Your task to perform on an android device: find photos in the google photos app Image 0: 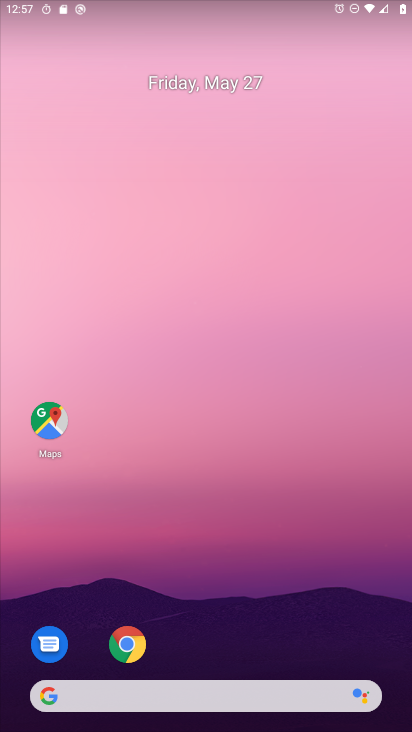
Step 0: drag from (249, 646) to (251, 237)
Your task to perform on an android device: find photos in the google photos app Image 1: 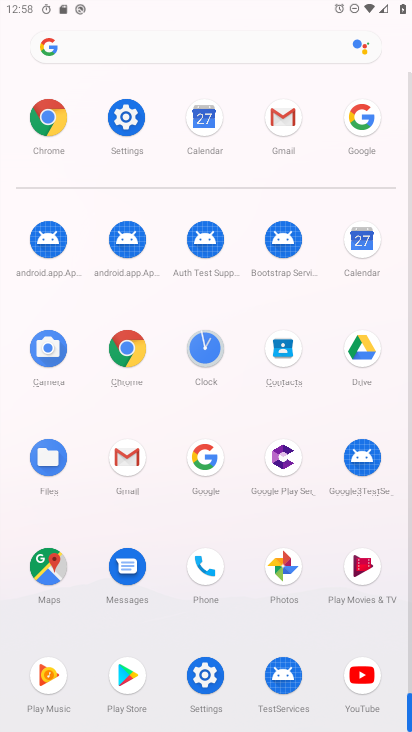
Step 1: click (278, 588)
Your task to perform on an android device: find photos in the google photos app Image 2: 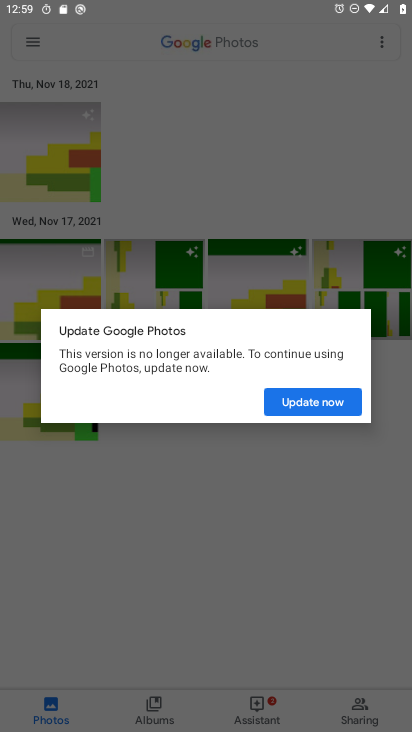
Step 2: click (277, 537)
Your task to perform on an android device: find photos in the google photos app Image 3: 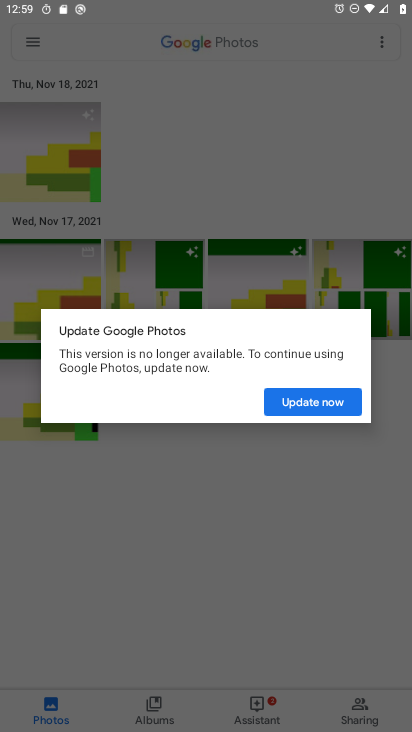
Step 3: click (308, 401)
Your task to perform on an android device: find photos in the google photos app Image 4: 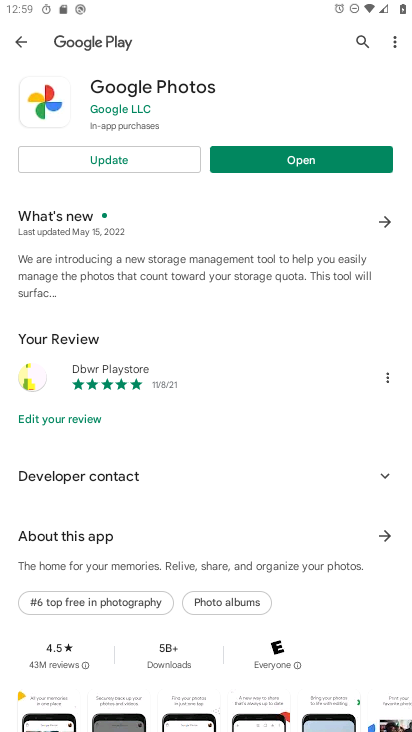
Step 4: click (266, 163)
Your task to perform on an android device: find photos in the google photos app Image 5: 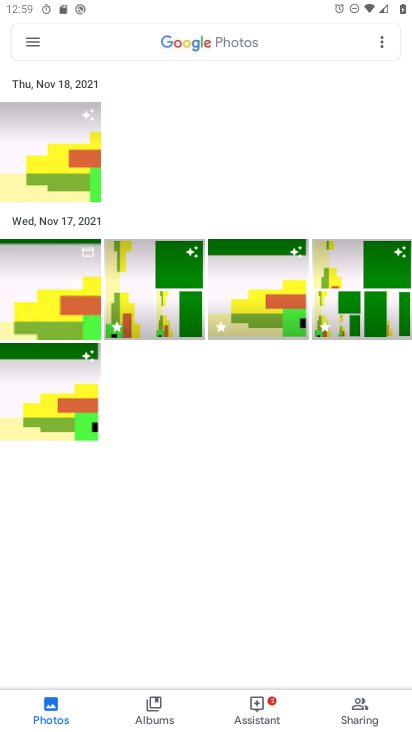
Step 5: click (223, 41)
Your task to perform on an android device: find photos in the google photos app Image 6: 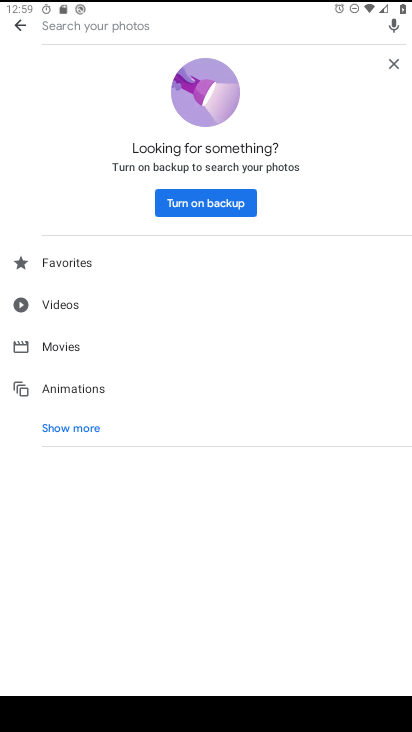
Step 6: type "aa"
Your task to perform on an android device: find photos in the google photos app Image 7: 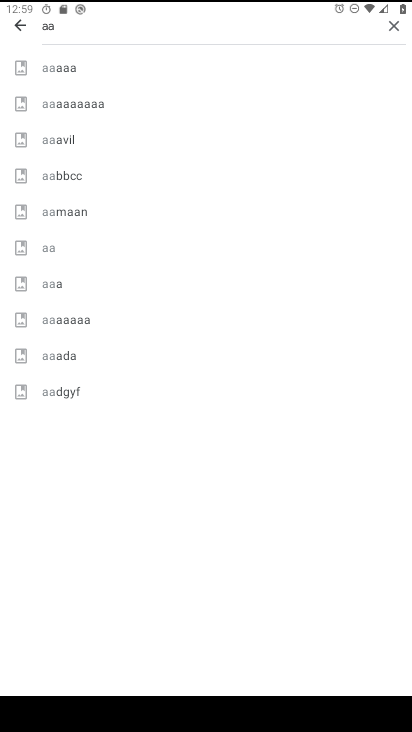
Step 7: click (82, 132)
Your task to perform on an android device: find photos in the google photos app Image 8: 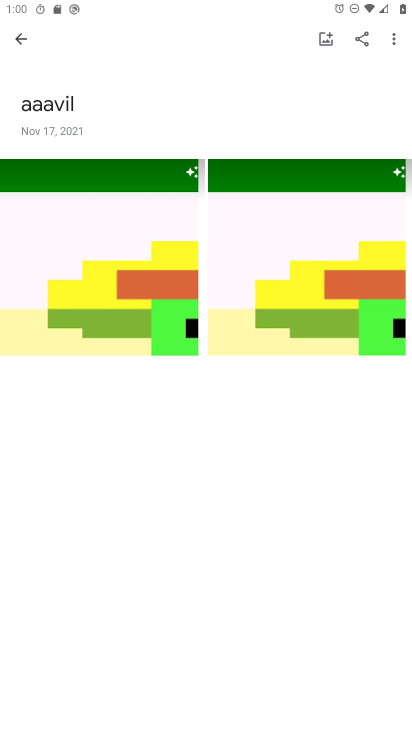
Step 8: task complete